Your task to perform on an android device: change the clock style Image 0: 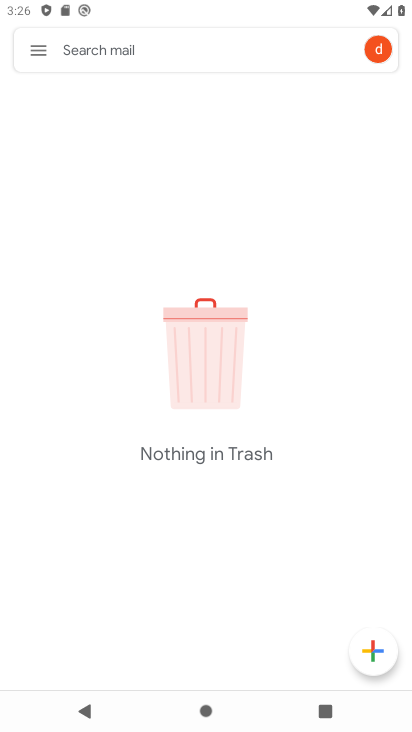
Step 0: press home button
Your task to perform on an android device: change the clock style Image 1: 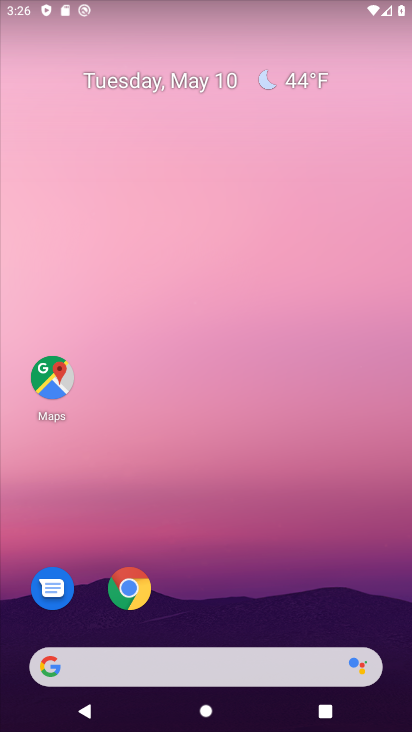
Step 1: drag from (264, 627) to (182, 0)
Your task to perform on an android device: change the clock style Image 2: 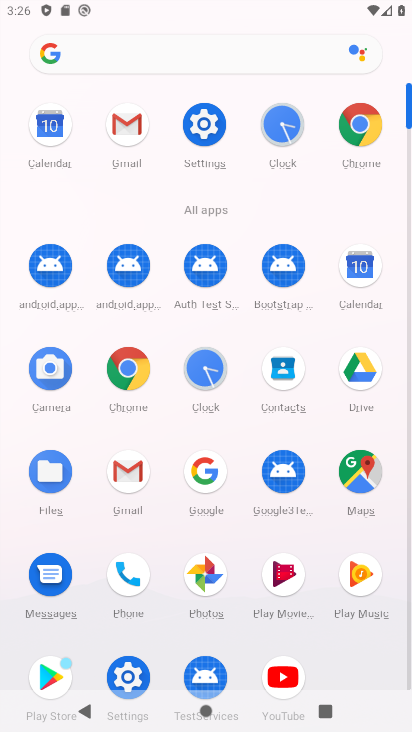
Step 2: click (282, 125)
Your task to perform on an android device: change the clock style Image 3: 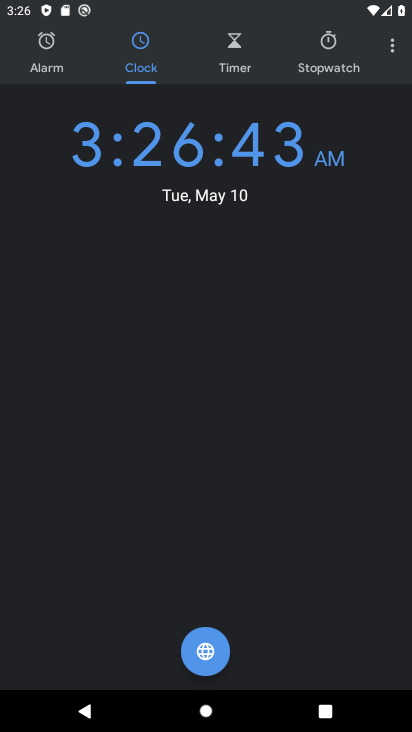
Step 3: click (401, 55)
Your task to perform on an android device: change the clock style Image 4: 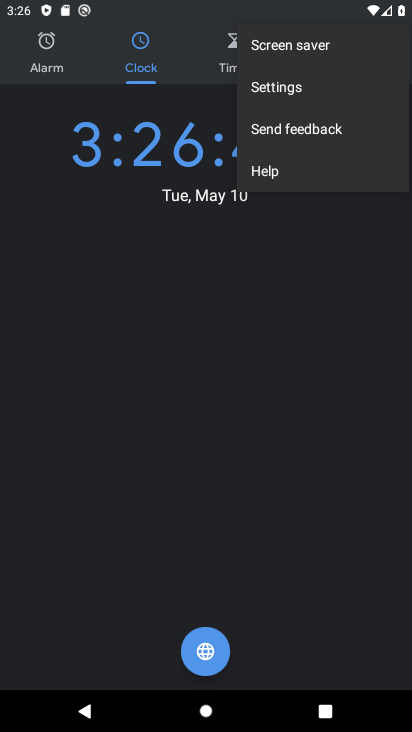
Step 4: click (311, 86)
Your task to perform on an android device: change the clock style Image 5: 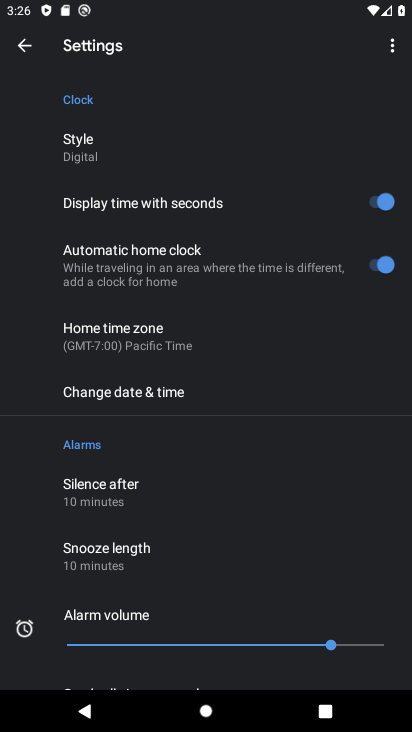
Step 5: click (117, 142)
Your task to perform on an android device: change the clock style Image 6: 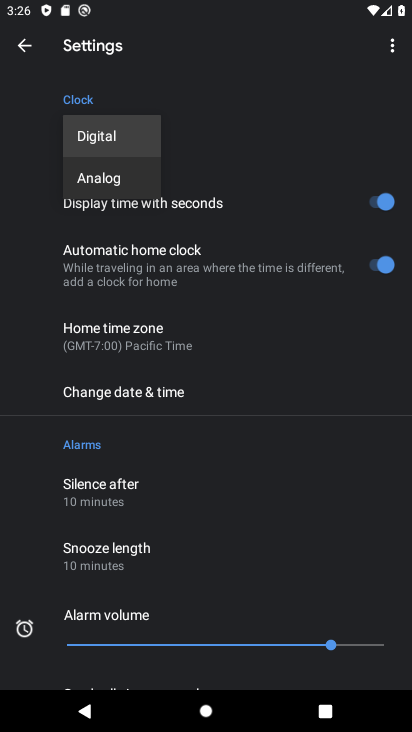
Step 6: click (117, 183)
Your task to perform on an android device: change the clock style Image 7: 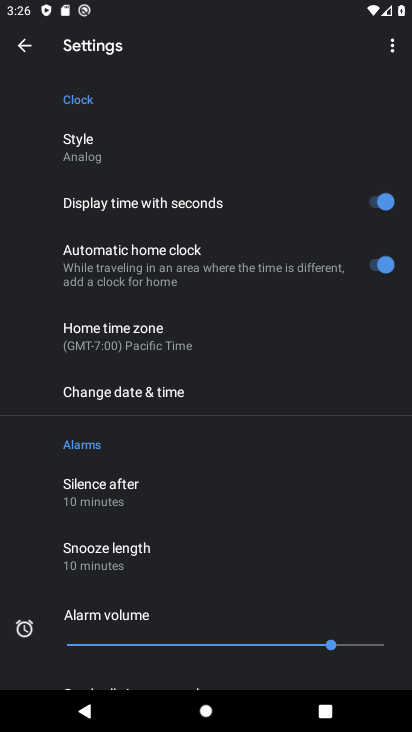
Step 7: task complete